Your task to perform on an android device: Go to battery settings Image 0: 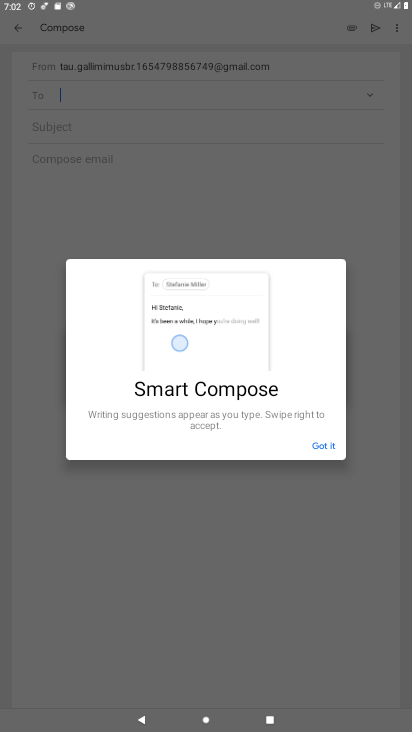
Step 0: press home button
Your task to perform on an android device: Go to battery settings Image 1: 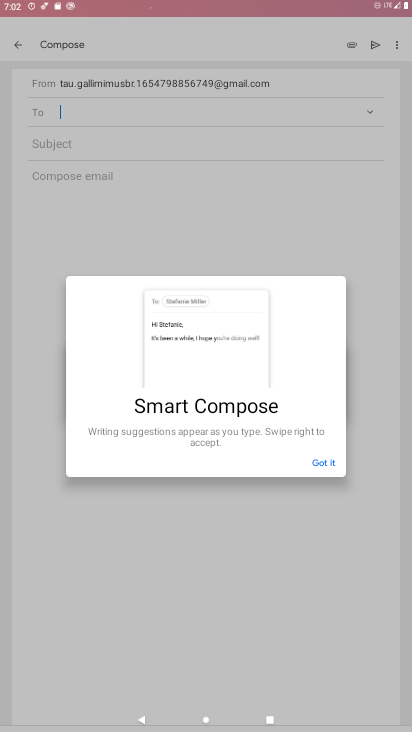
Step 1: drag from (388, 669) to (257, 4)
Your task to perform on an android device: Go to battery settings Image 2: 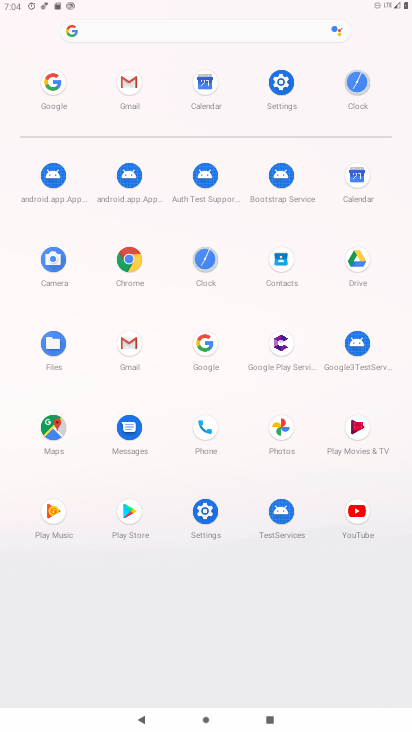
Step 2: click (188, 506)
Your task to perform on an android device: Go to battery settings Image 3: 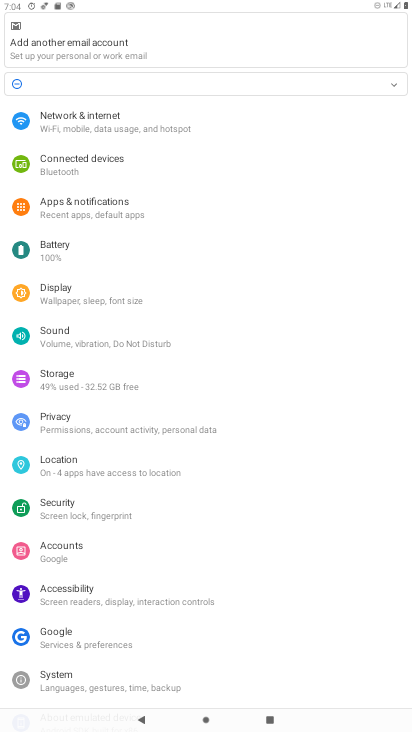
Step 3: click (61, 242)
Your task to perform on an android device: Go to battery settings Image 4: 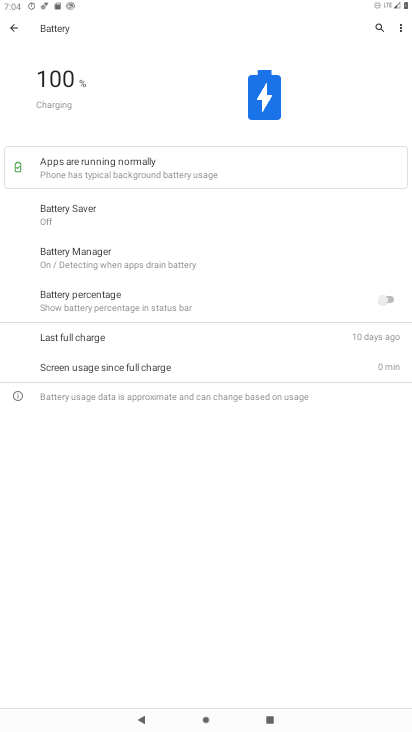
Step 4: task complete